Your task to perform on an android device: choose inbox layout in the gmail app Image 0: 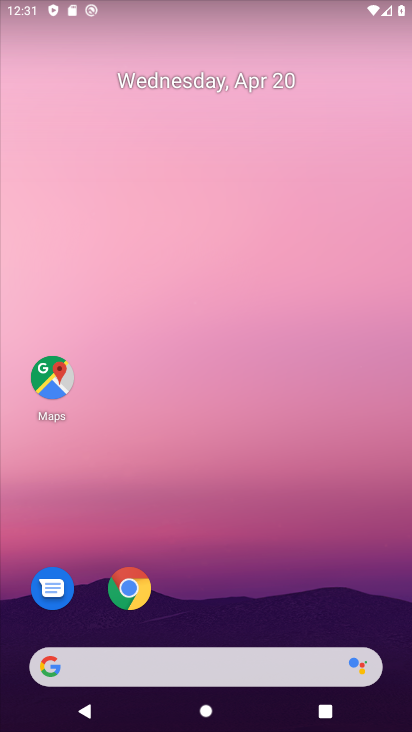
Step 0: drag from (257, 645) to (293, 149)
Your task to perform on an android device: choose inbox layout in the gmail app Image 1: 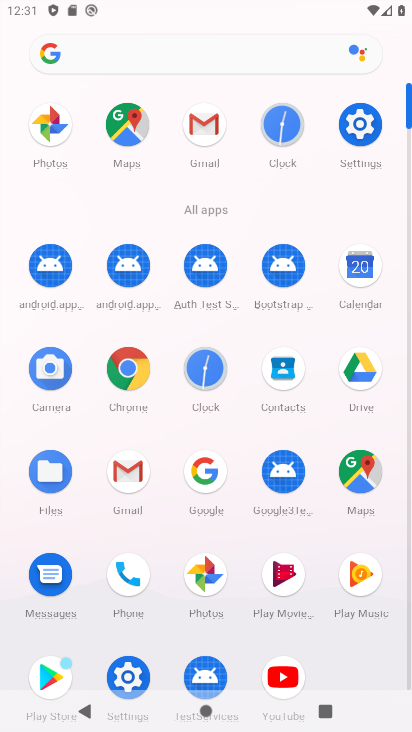
Step 1: click (124, 474)
Your task to perform on an android device: choose inbox layout in the gmail app Image 2: 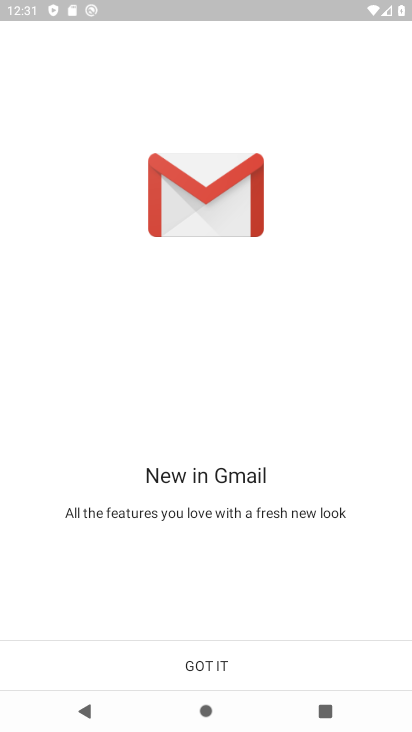
Step 2: click (223, 665)
Your task to perform on an android device: choose inbox layout in the gmail app Image 3: 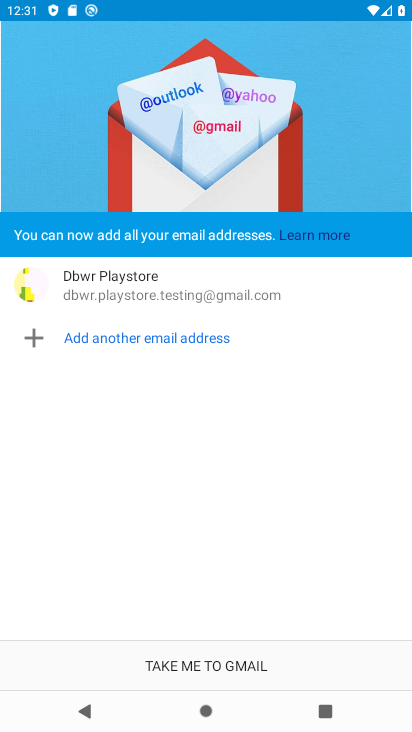
Step 3: click (223, 665)
Your task to perform on an android device: choose inbox layout in the gmail app Image 4: 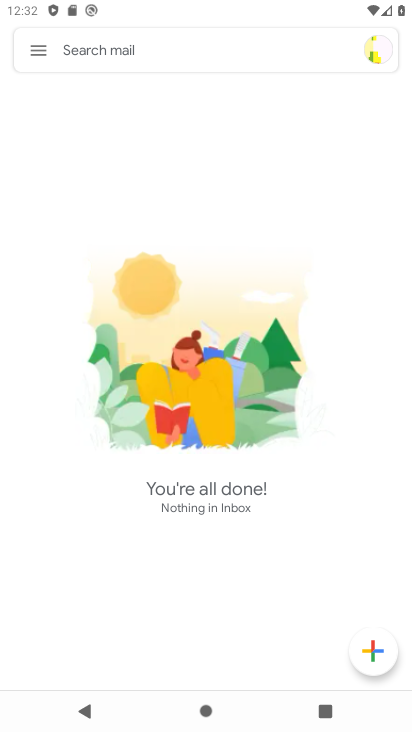
Step 4: click (40, 52)
Your task to perform on an android device: choose inbox layout in the gmail app Image 5: 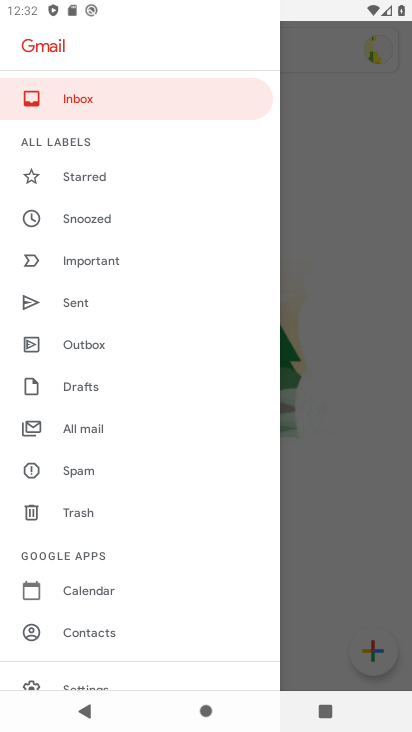
Step 5: drag from (108, 673) to (178, 419)
Your task to perform on an android device: choose inbox layout in the gmail app Image 6: 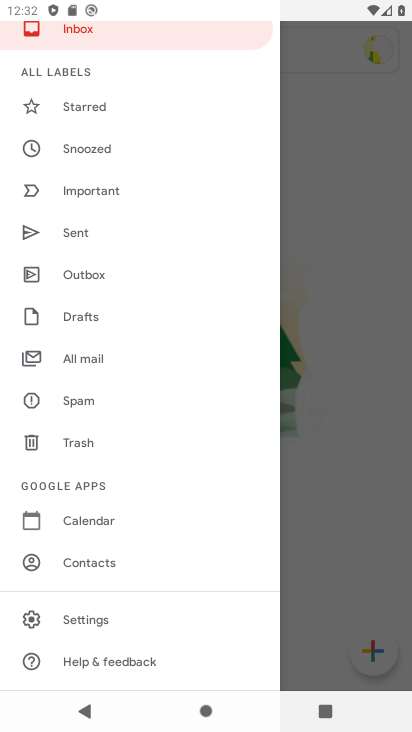
Step 6: click (82, 617)
Your task to perform on an android device: choose inbox layout in the gmail app Image 7: 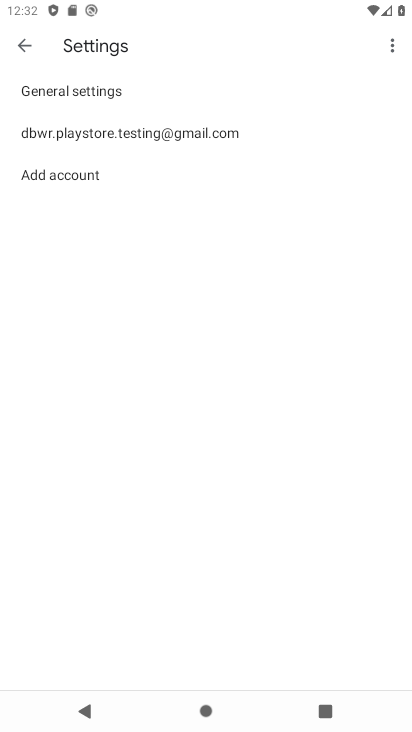
Step 7: click (129, 127)
Your task to perform on an android device: choose inbox layout in the gmail app Image 8: 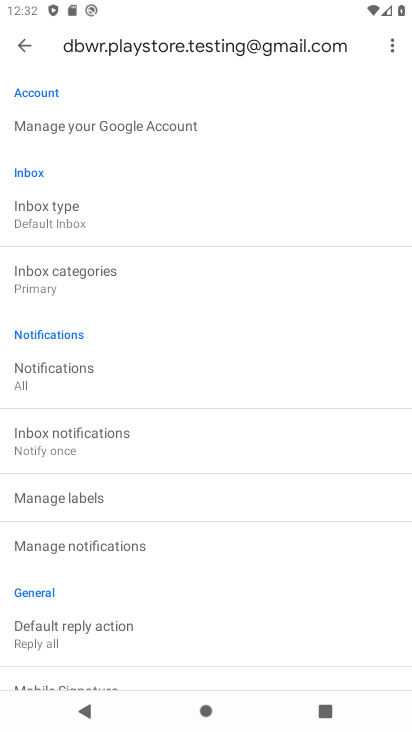
Step 8: click (75, 216)
Your task to perform on an android device: choose inbox layout in the gmail app Image 9: 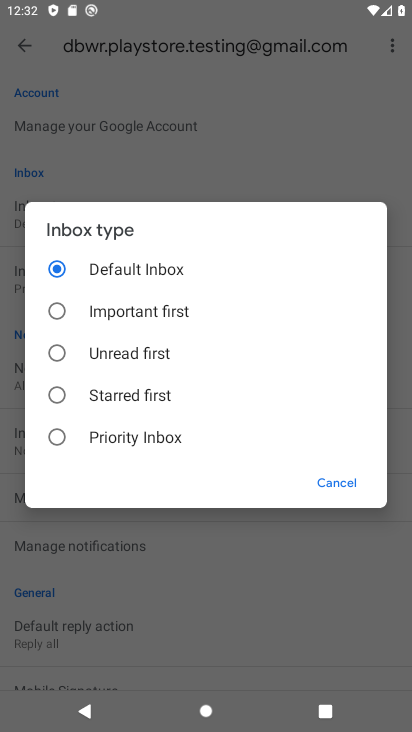
Step 9: click (91, 433)
Your task to perform on an android device: choose inbox layout in the gmail app Image 10: 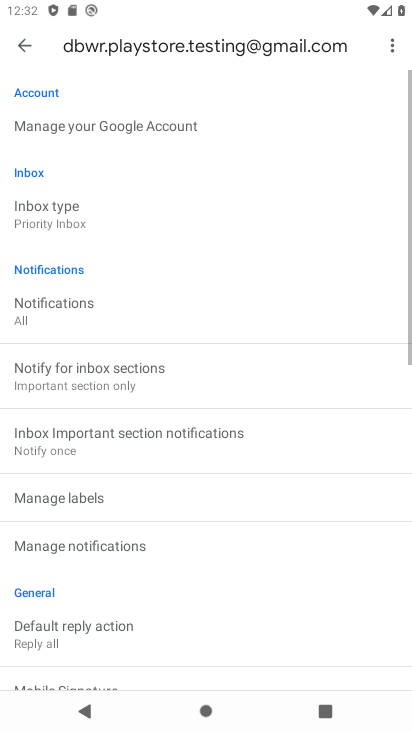
Step 10: task complete